Your task to perform on an android device: Open calendar and show me the fourth week of next month Image 0: 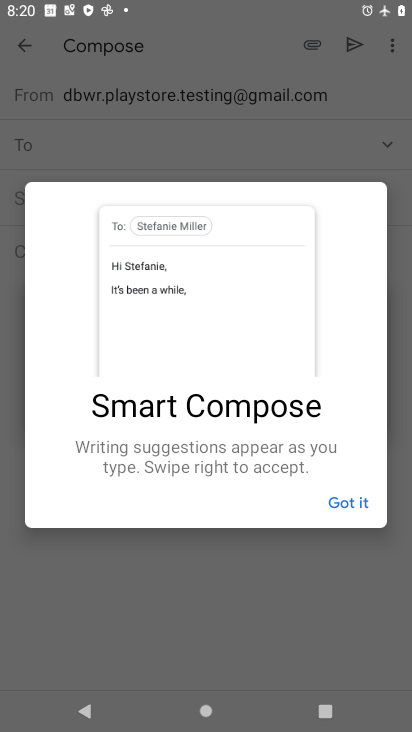
Step 0: press home button
Your task to perform on an android device: Open calendar and show me the fourth week of next month Image 1: 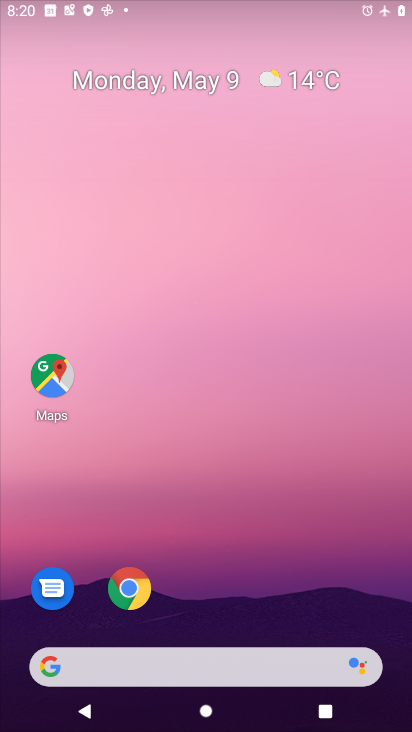
Step 1: drag from (296, 594) to (287, 7)
Your task to perform on an android device: Open calendar and show me the fourth week of next month Image 2: 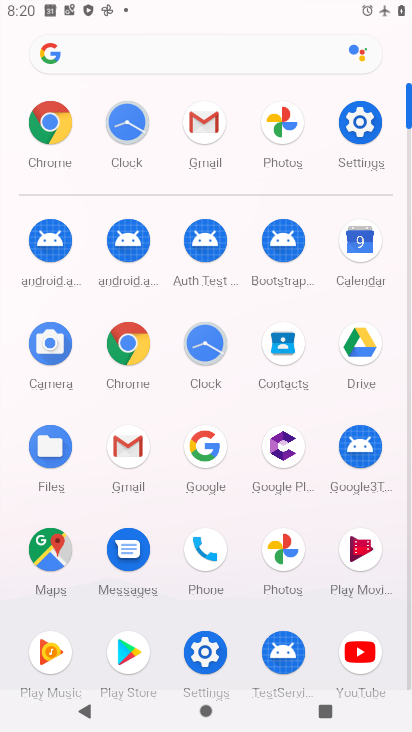
Step 2: click (369, 239)
Your task to perform on an android device: Open calendar and show me the fourth week of next month Image 3: 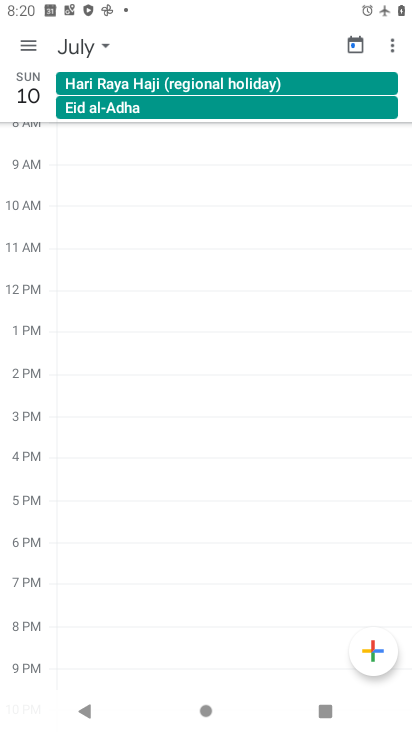
Step 3: click (73, 49)
Your task to perform on an android device: Open calendar and show me the fourth week of next month Image 4: 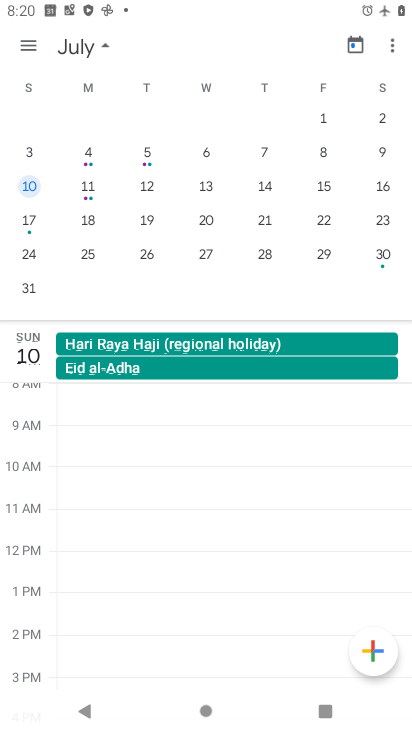
Step 4: drag from (343, 221) to (38, 180)
Your task to perform on an android device: Open calendar and show me the fourth week of next month Image 5: 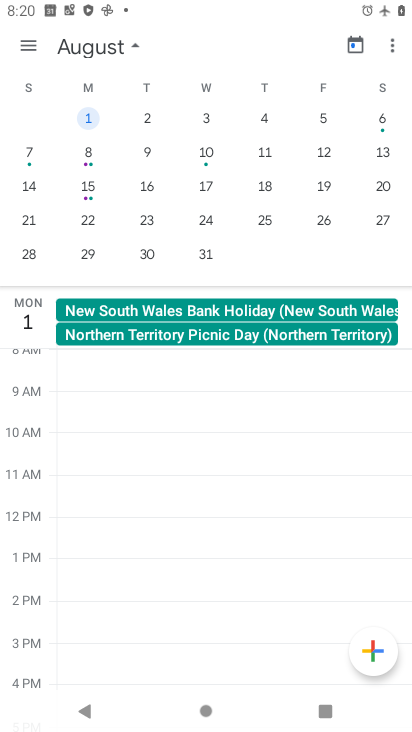
Step 5: click (154, 248)
Your task to perform on an android device: Open calendar and show me the fourth week of next month Image 6: 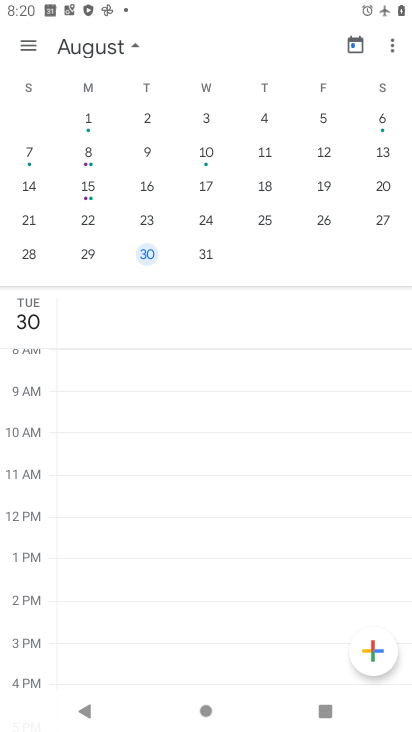
Step 6: task complete